Your task to perform on an android device: Open Android settings Image 0: 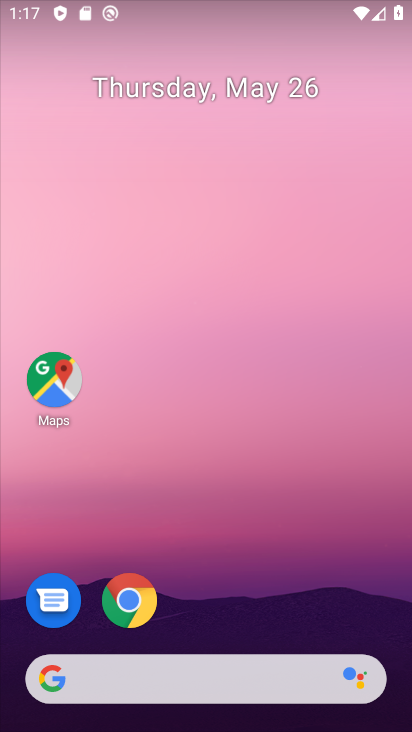
Step 0: drag from (253, 595) to (233, 153)
Your task to perform on an android device: Open Android settings Image 1: 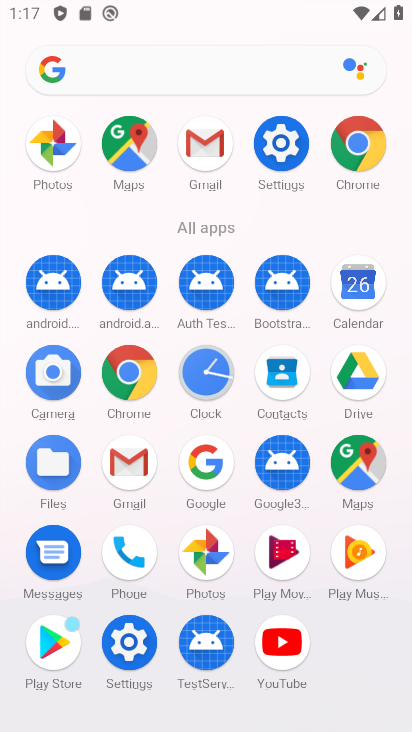
Step 1: click (282, 145)
Your task to perform on an android device: Open Android settings Image 2: 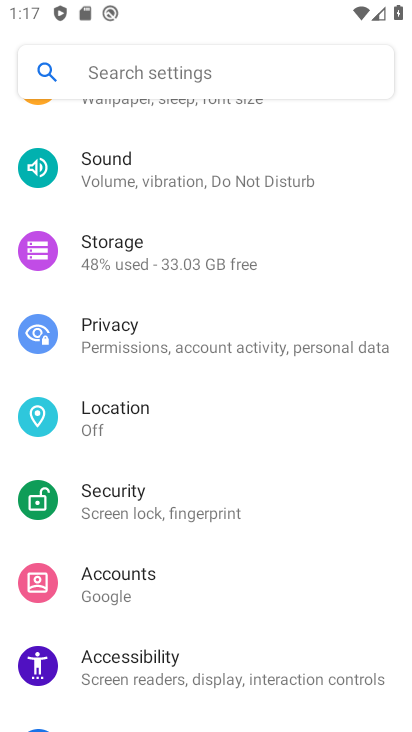
Step 2: task complete